Your task to perform on an android device: Go to internet settings Image 0: 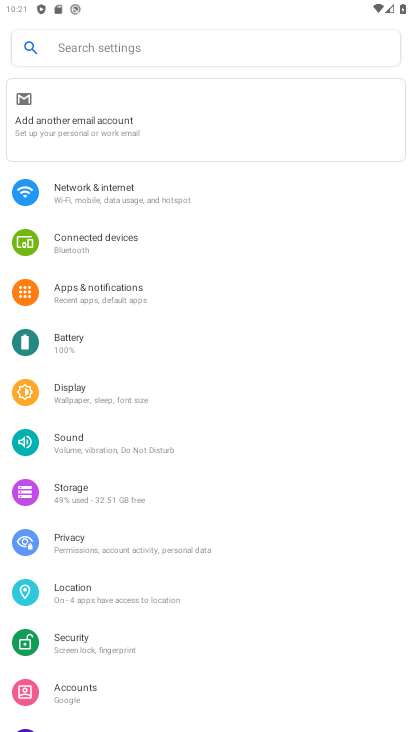
Step 0: click (91, 205)
Your task to perform on an android device: Go to internet settings Image 1: 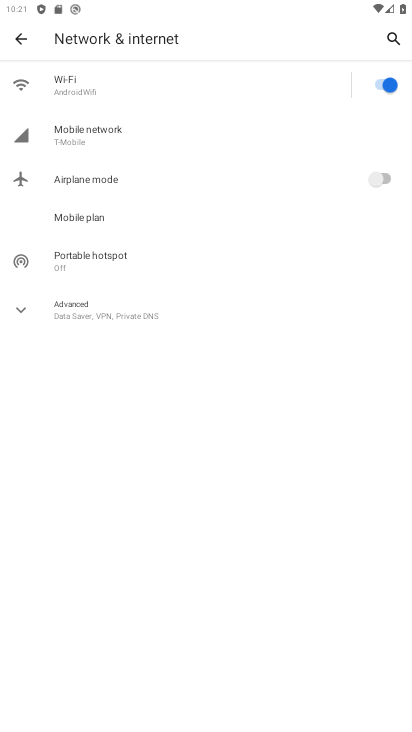
Step 1: click (25, 310)
Your task to perform on an android device: Go to internet settings Image 2: 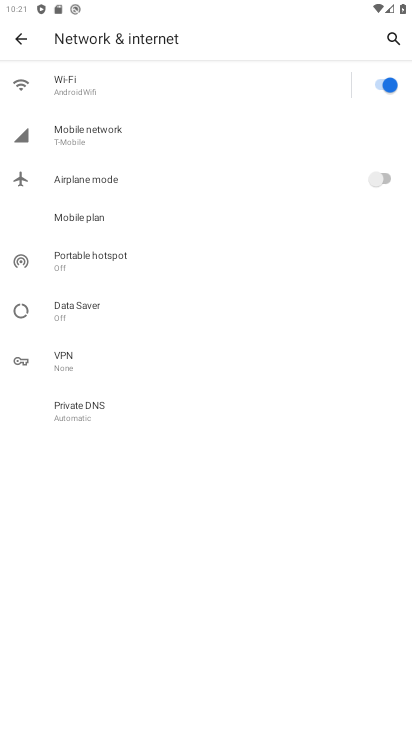
Step 2: task complete